Your task to perform on an android device: Go to network settings Image 0: 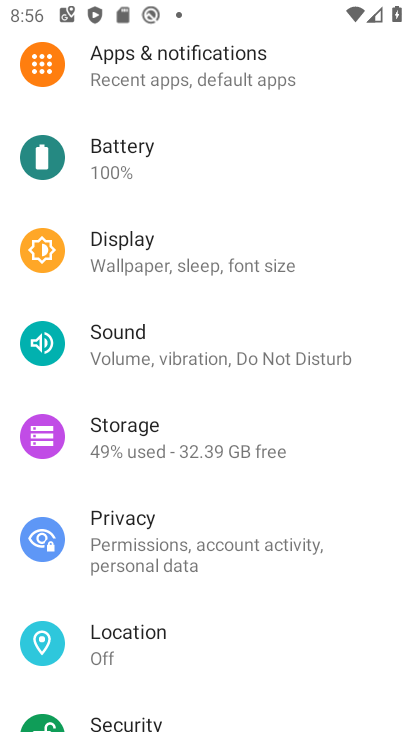
Step 0: press home button
Your task to perform on an android device: Go to network settings Image 1: 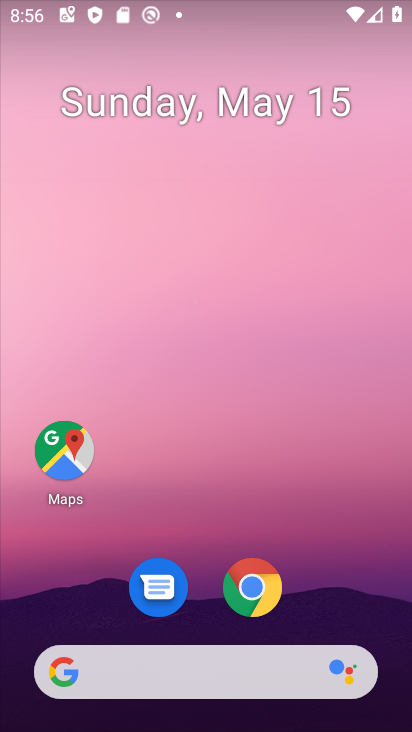
Step 1: drag from (376, 629) to (353, 22)
Your task to perform on an android device: Go to network settings Image 2: 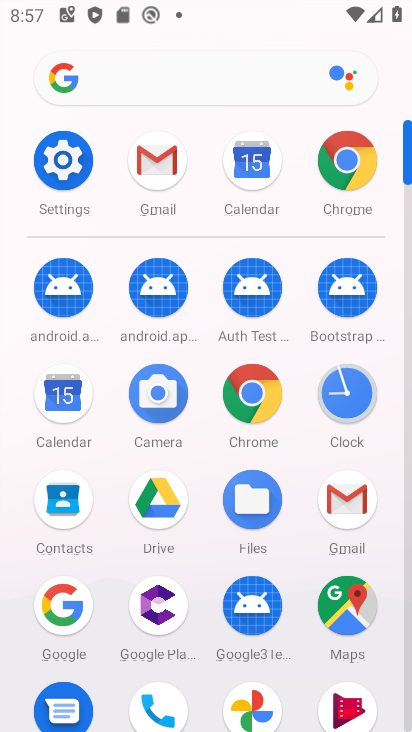
Step 2: click (73, 148)
Your task to perform on an android device: Go to network settings Image 3: 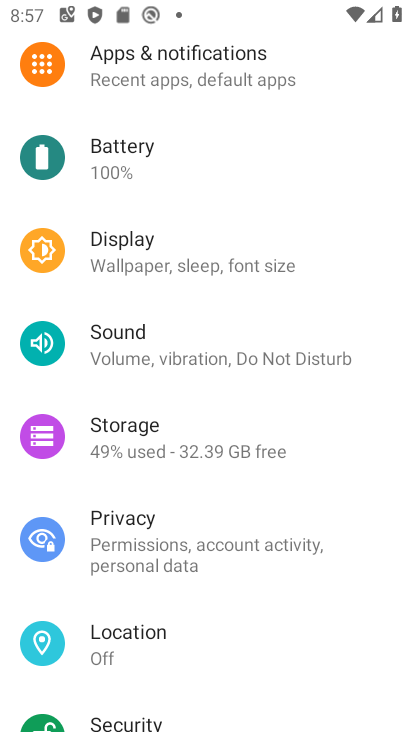
Step 3: drag from (136, 138) to (213, 542)
Your task to perform on an android device: Go to network settings Image 4: 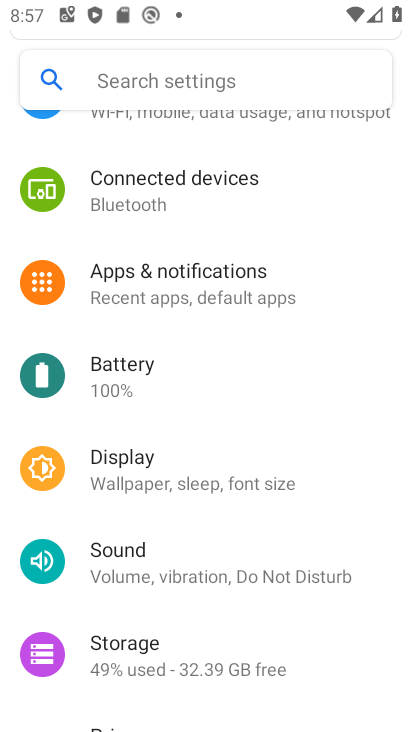
Step 4: drag from (165, 150) to (196, 548)
Your task to perform on an android device: Go to network settings Image 5: 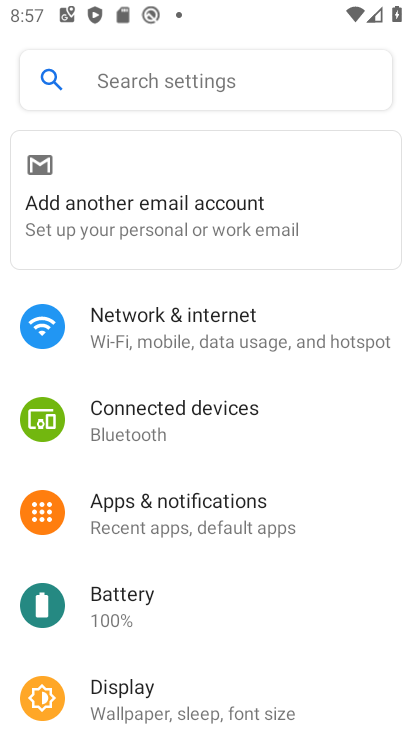
Step 5: click (269, 354)
Your task to perform on an android device: Go to network settings Image 6: 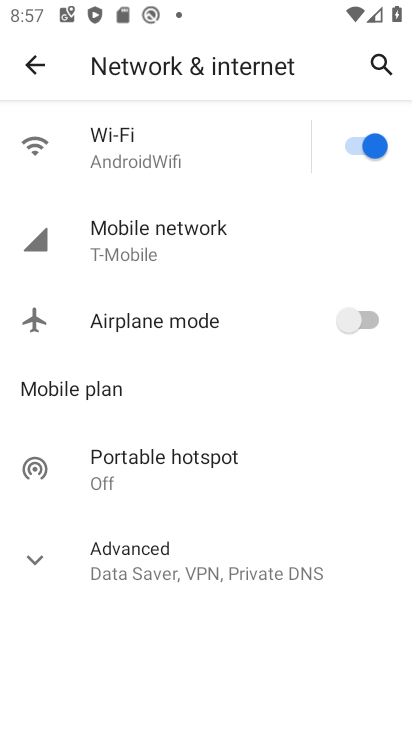
Step 6: task complete